Your task to perform on an android device: turn off airplane mode Image 0: 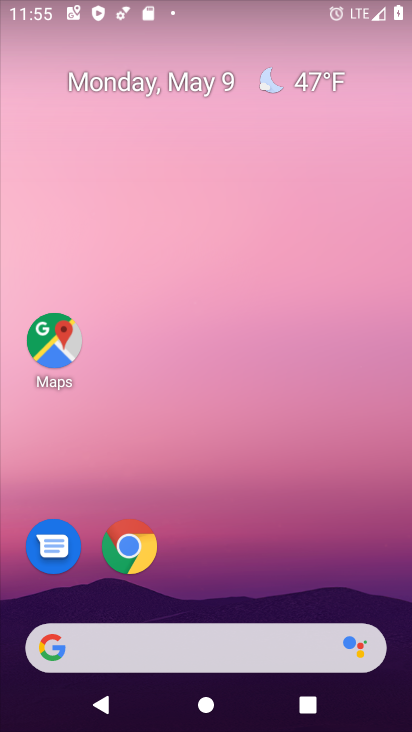
Step 0: drag from (278, 582) to (314, 1)
Your task to perform on an android device: turn off airplane mode Image 1: 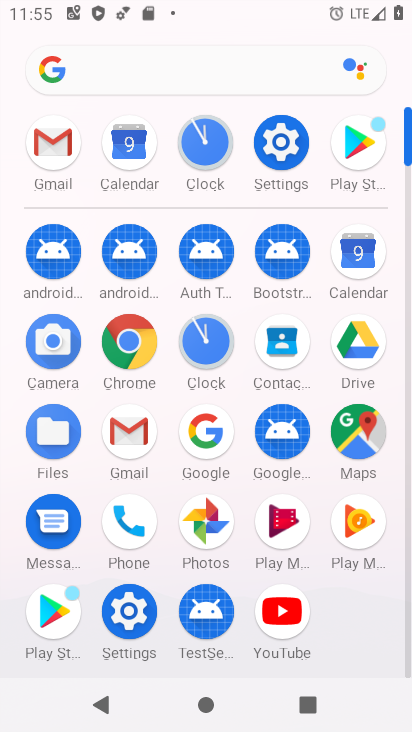
Step 1: click (285, 156)
Your task to perform on an android device: turn off airplane mode Image 2: 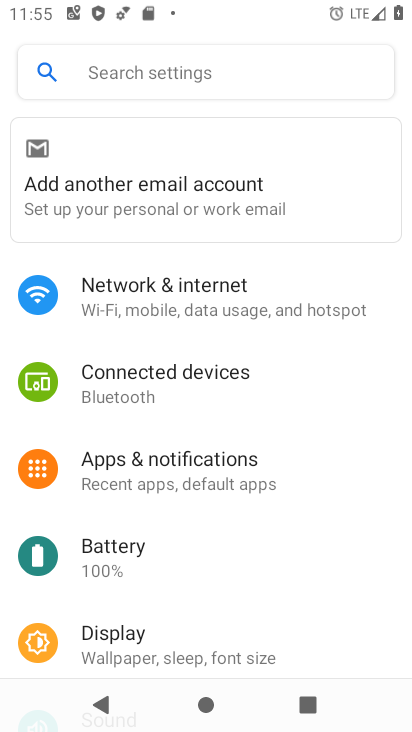
Step 2: click (176, 299)
Your task to perform on an android device: turn off airplane mode Image 3: 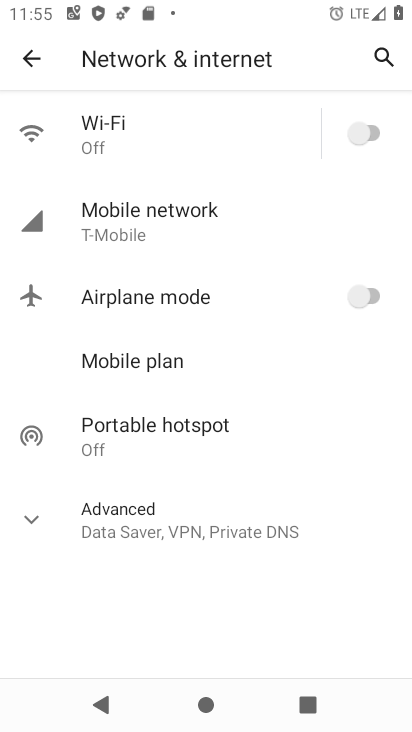
Step 3: task complete